Your task to perform on an android device: What's the weather going to be this weekend? Image 0: 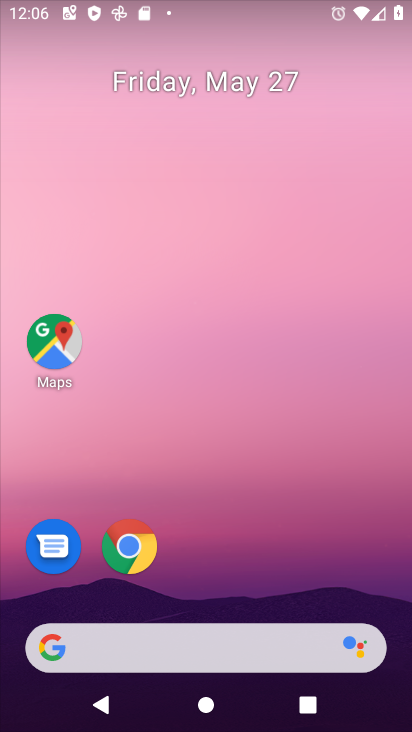
Step 0: drag from (235, 554) to (293, 45)
Your task to perform on an android device: What's the weather going to be this weekend? Image 1: 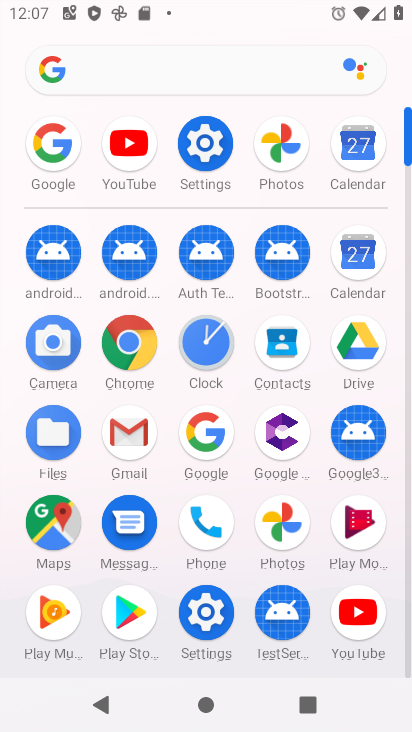
Step 1: click (55, 142)
Your task to perform on an android device: What's the weather going to be this weekend? Image 2: 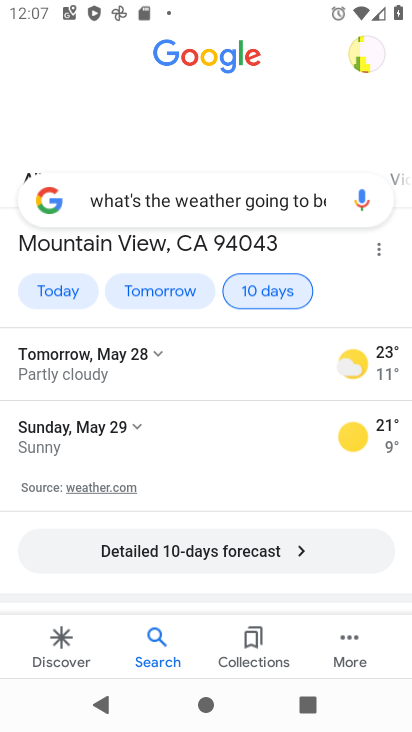
Step 2: click (278, 196)
Your task to perform on an android device: What's the weather going to be this weekend? Image 3: 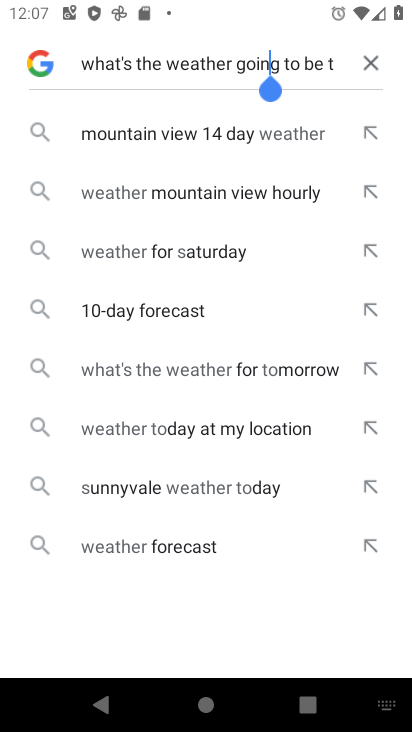
Step 3: drag from (264, 91) to (390, 134)
Your task to perform on an android device: What's the weather going to be this weekend? Image 4: 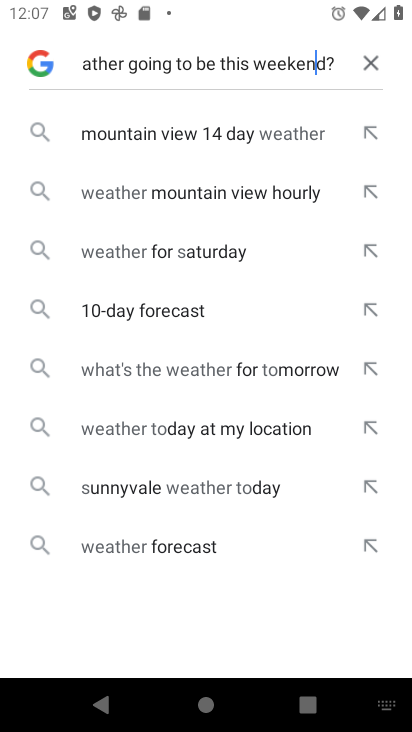
Step 4: click (341, 66)
Your task to perform on an android device: What's the weather going to be this weekend? Image 5: 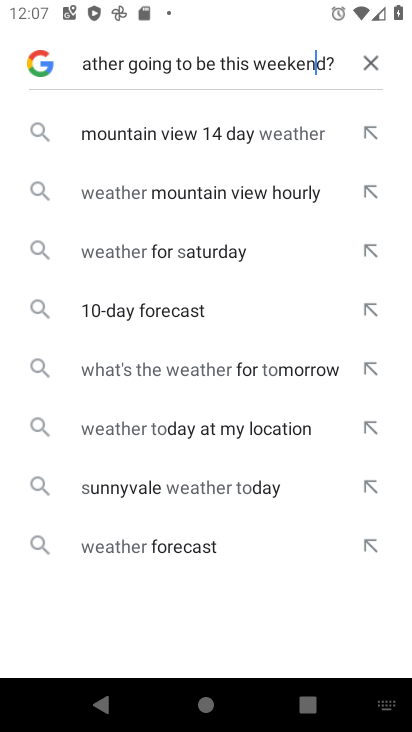
Step 5: click (368, 70)
Your task to perform on an android device: What's the weather going to be this weekend? Image 6: 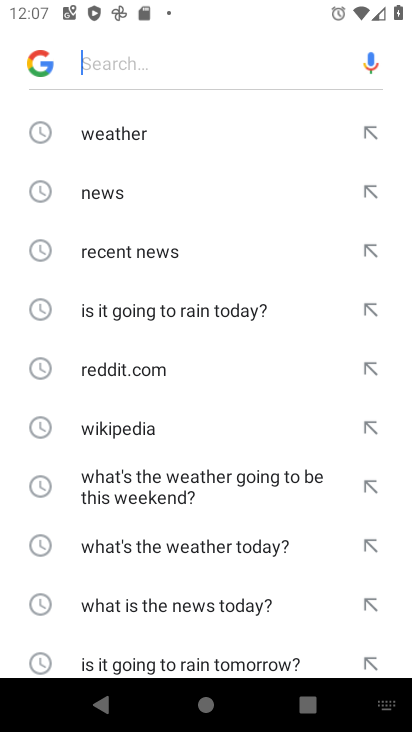
Step 6: click (192, 492)
Your task to perform on an android device: What's the weather going to be this weekend? Image 7: 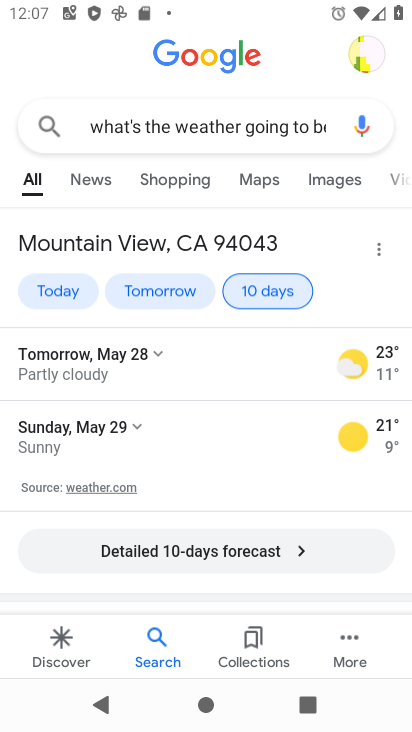
Step 7: task complete